Your task to perform on an android device: Turn on the flashlight Image 0: 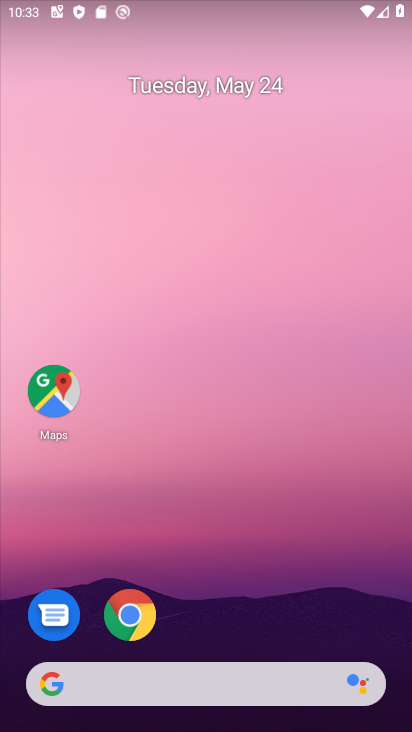
Step 0: drag from (268, 606) to (339, 247)
Your task to perform on an android device: Turn on the flashlight Image 1: 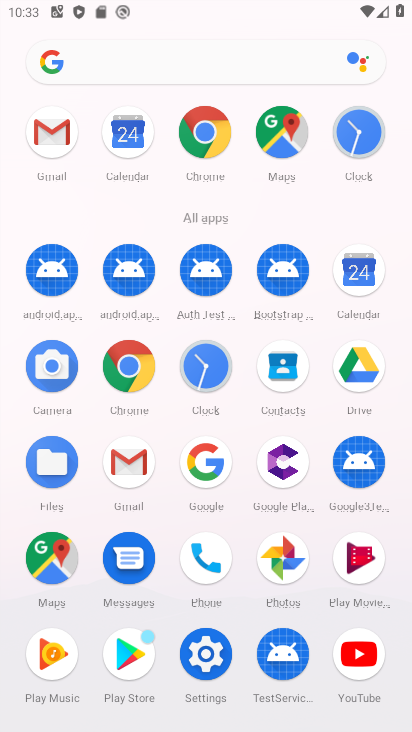
Step 1: click (207, 651)
Your task to perform on an android device: Turn on the flashlight Image 2: 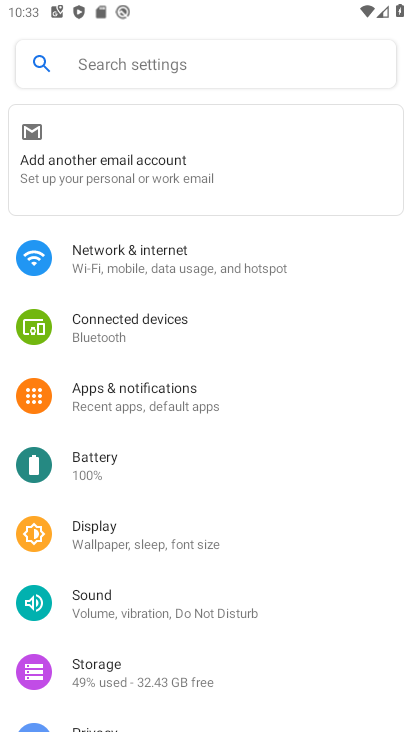
Step 2: click (119, 533)
Your task to perform on an android device: Turn on the flashlight Image 3: 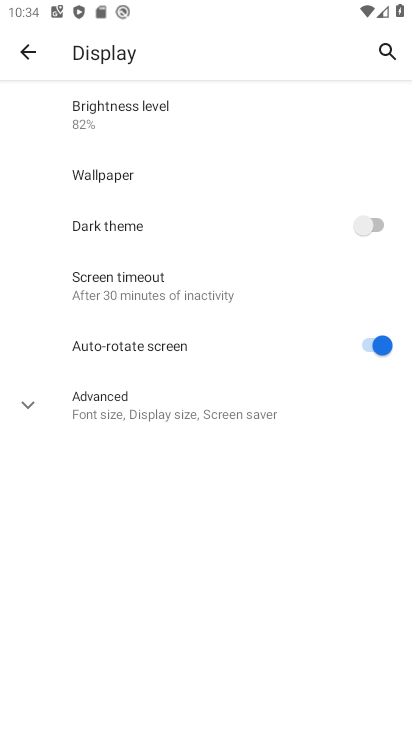
Step 3: task complete